Your task to perform on an android device: turn on priority inbox in the gmail app Image 0: 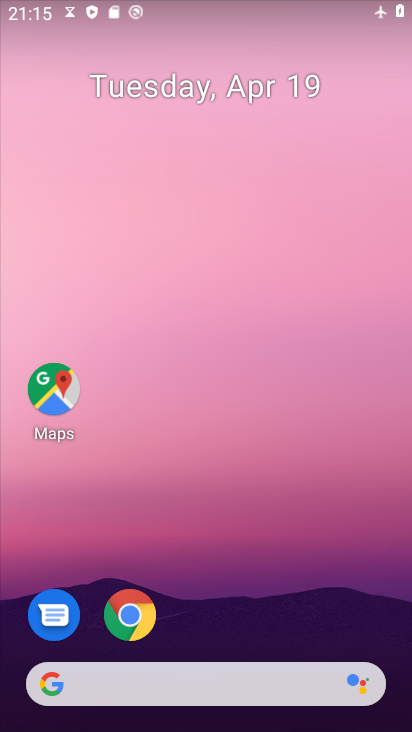
Step 0: drag from (372, 556) to (279, 29)
Your task to perform on an android device: turn on priority inbox in the gmail app Image 1: 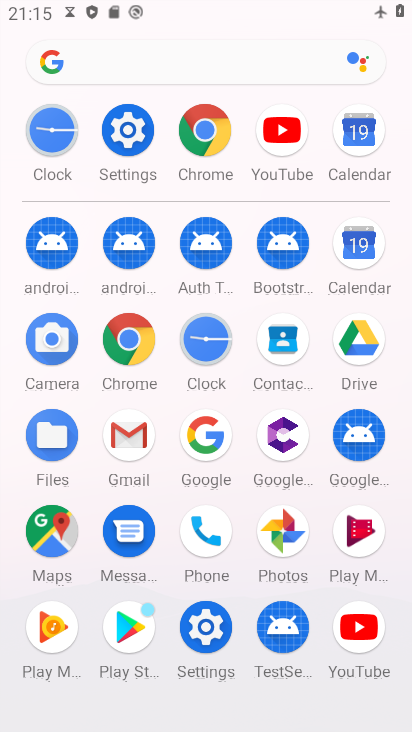
Step 1: drag from (11, 481) to (1, 257)
Your task to perform on an android device: turn on priority inbox in the gmail app Image 2: 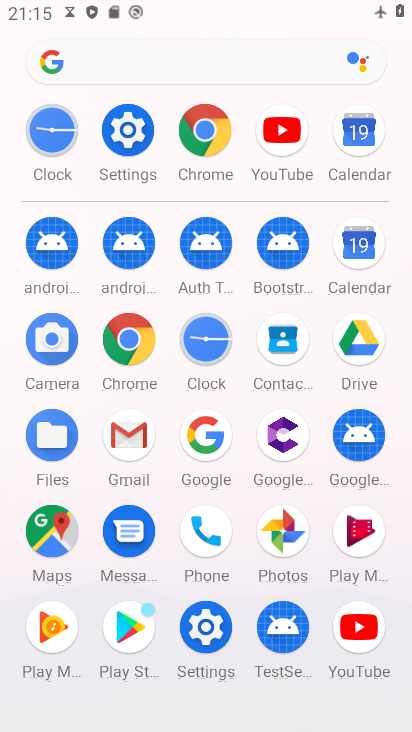
Step 2: click (127, 429)
Your task to perform on an android device: turn on priority inbox in the gmail app Image 3: 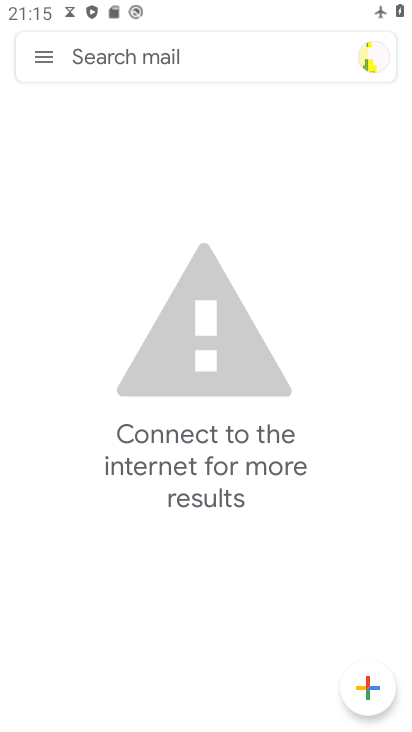
Step 3: click (37, 61)
Your task to perform on an android device: turn on priority inbox in the gmail app Image 4: 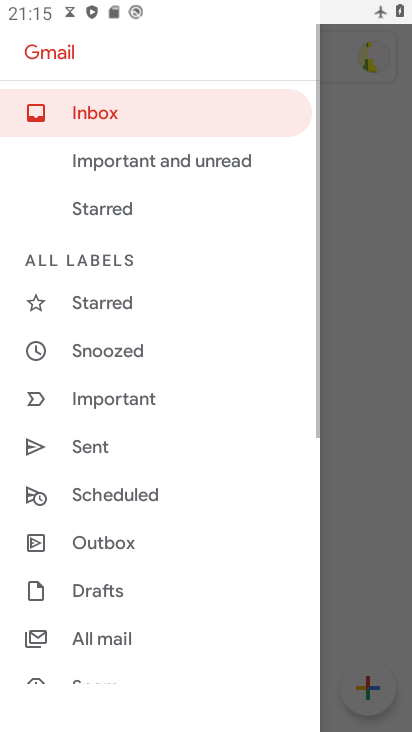
Step 4: drag from (171, 619) to (196, 190)
Your task to perform on an android device: turn on priority inbox in the gmail app Image 5: 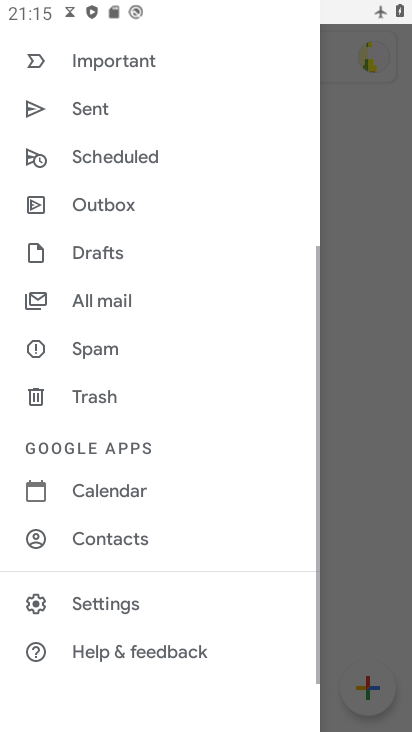
Step 5: click (123, 607)
Your task to perform on an android device: turn on priority inbox in the gmail app Image 6: 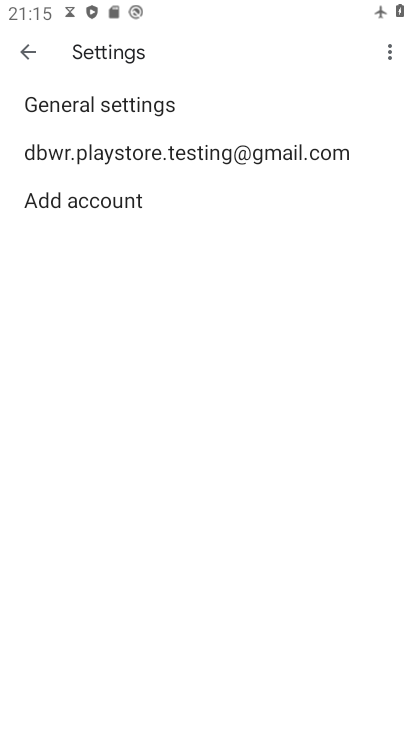
Step 6: click (212, 152)
Your task to perform on an android device: turn on priority inbox in the gmail app Image 7: 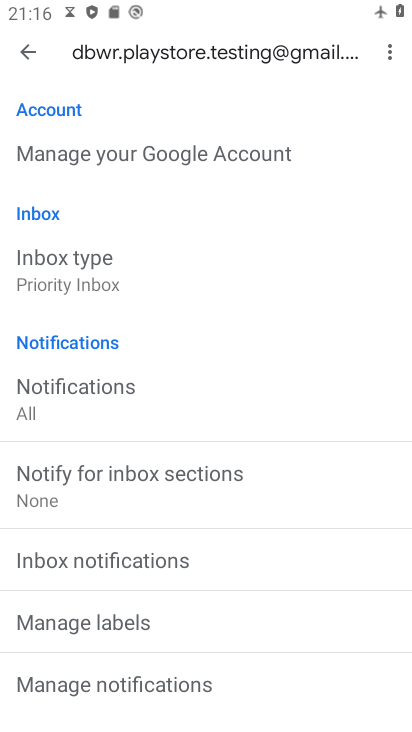
Step 7: click (134, 278)
Your task to perform on an android device: turn on priority inbox in the gmail app Image 8: 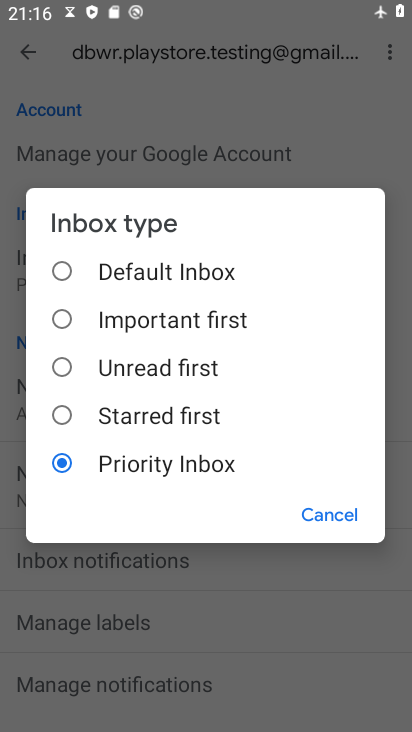
Step 8: click (199, 462)
Your task to perform on an android device: turn on priority inbox in the gmail app Image 9: 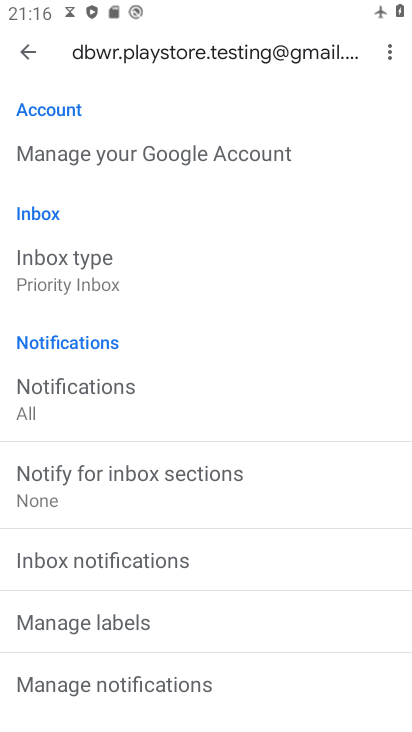
Step 9: task complete